Your task to perform on an android device: Do I have any events this weekend? Image 0: 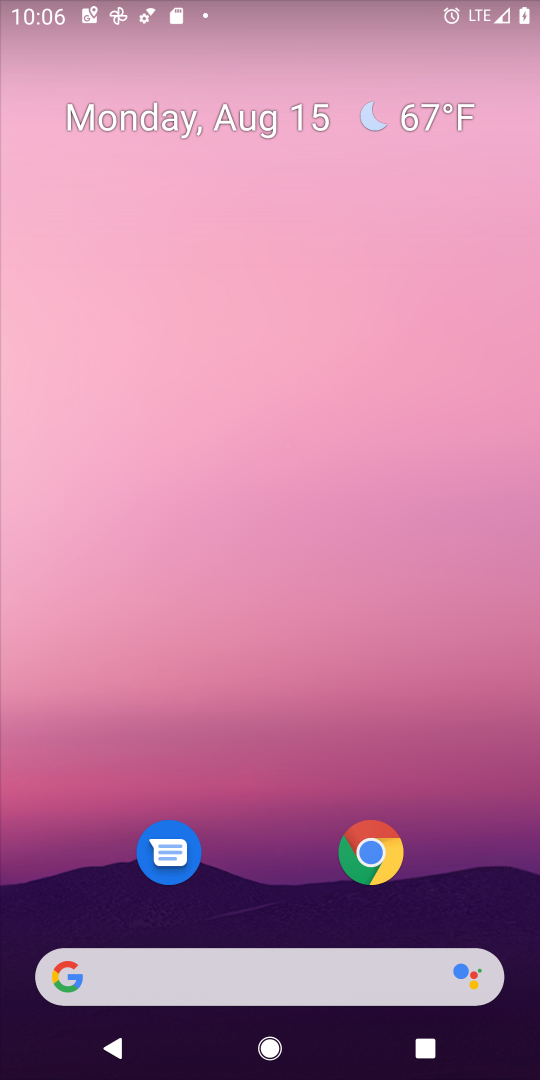
Step 0: drag from (229, 982) to (301, 134)
Your task to perform on an android device: Do I have any events this weekend? Image 1: 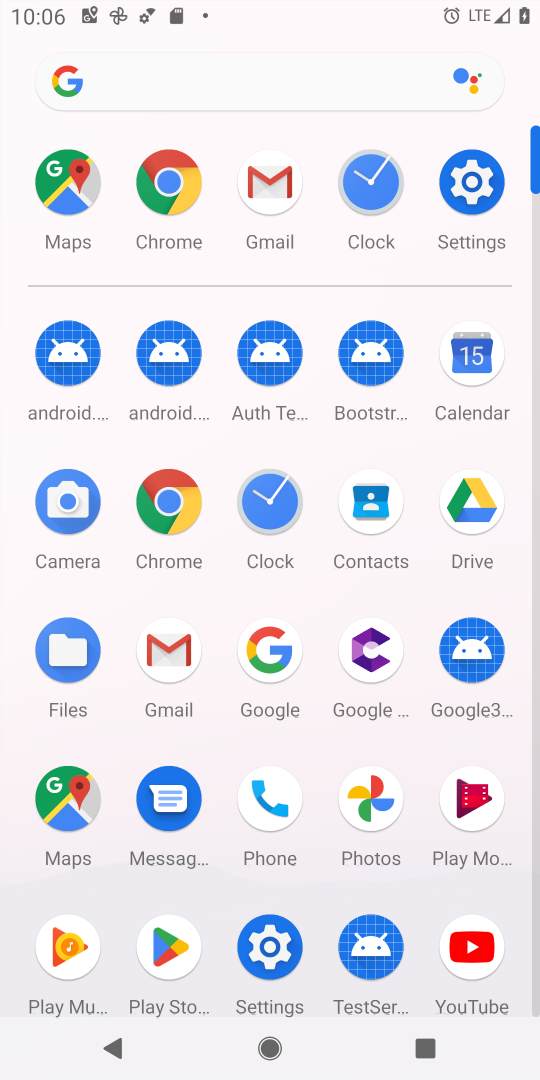
Step 1: click (472, 361)
Your task to perform on an android device: Do I have any events this weekend? Image 2: 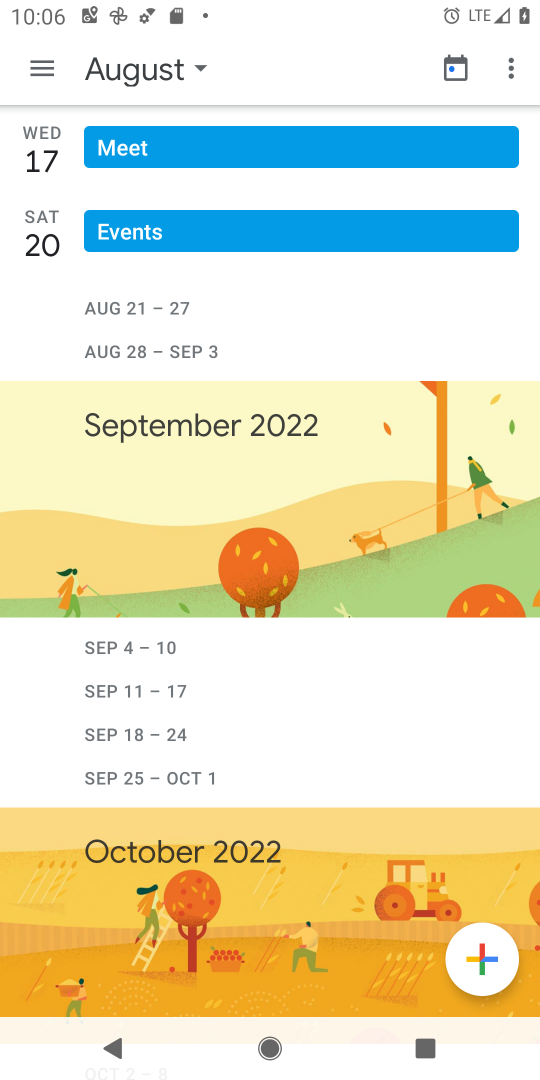
Step 2: click (453, 74)
Your task to perform on an android device: Do I have any events this weekend? Image 3: 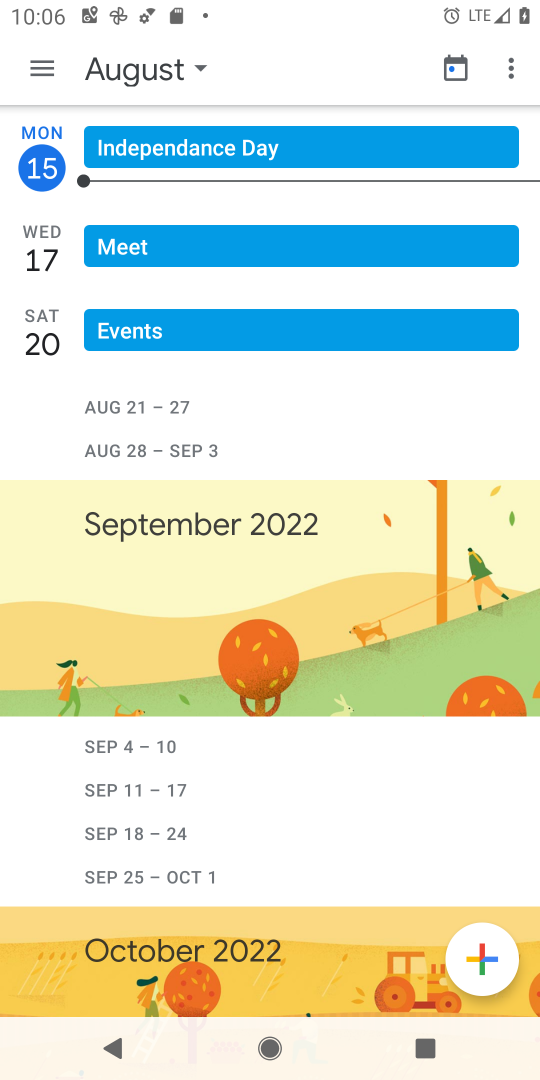
Step 3: click (197, 66)
Your task to perform on an android device: Do I have any events this weekend? Image 4: 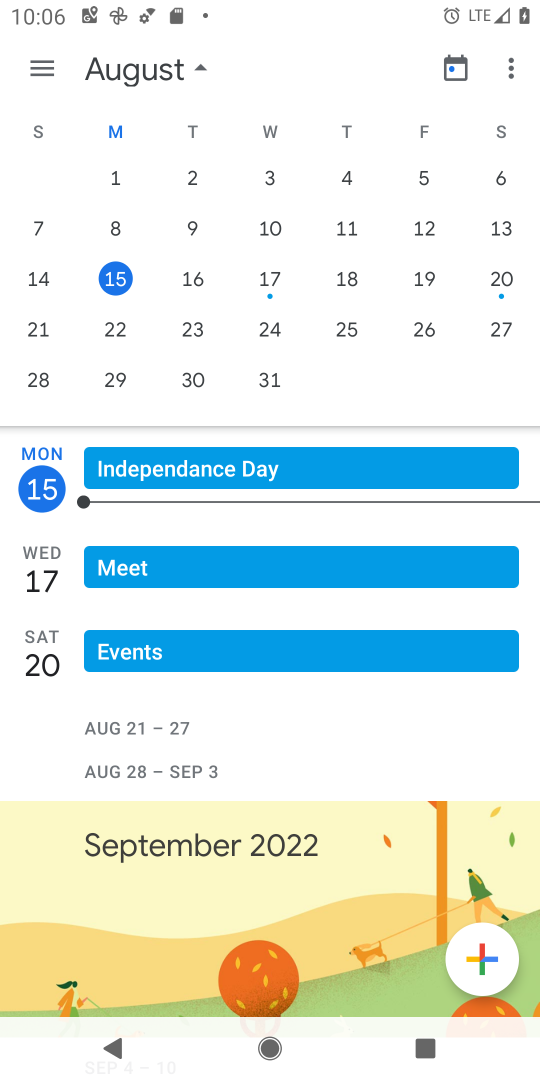
Step 4: click (512, 276)
Your task to perform on an android device: Do I have any events this weekend? Image 5: 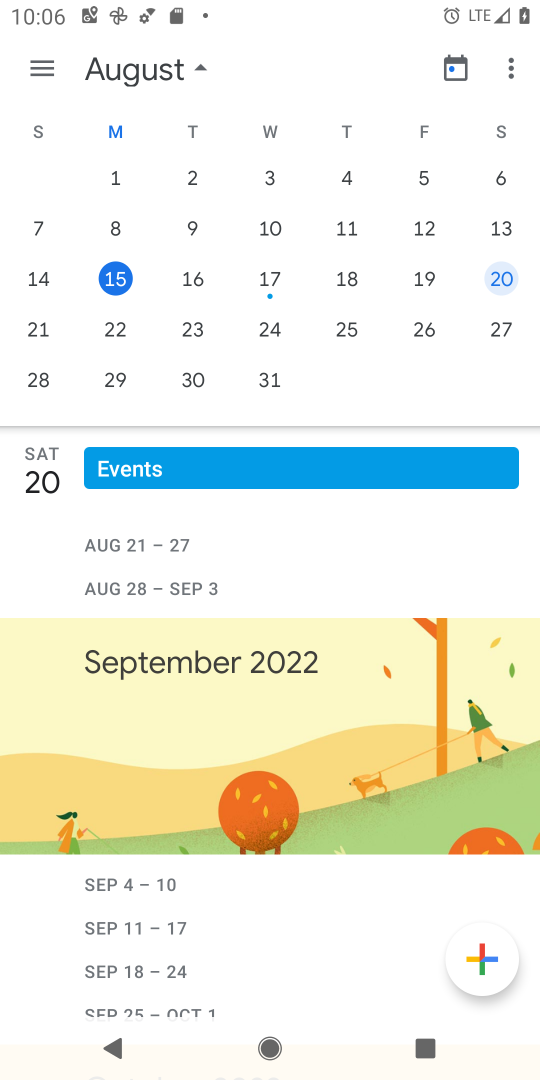
Step 5: task complete